Your task to perform on an android device: clear all cookies in the chrome app Image 0: 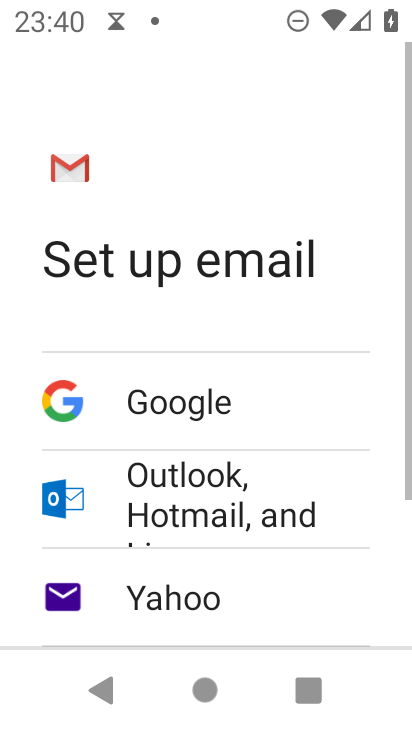
Step 0: press home button
Your task to perform on an android device: clear all cookies in the chrome app Image 1: 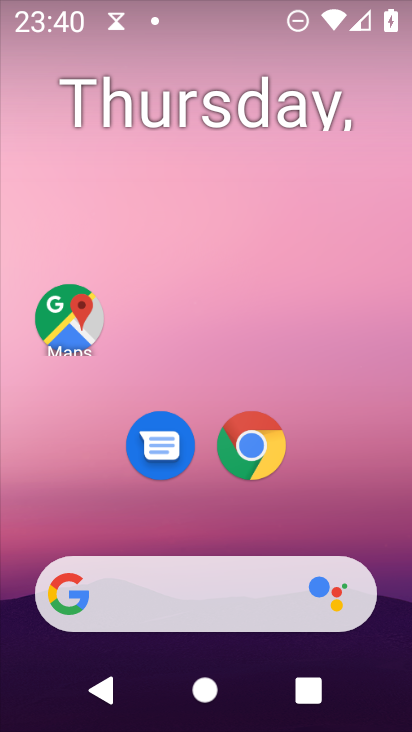
Step 1: click (284, 478)
Your task to perform on an android device: clear all cookies in the chrome app Image 2: 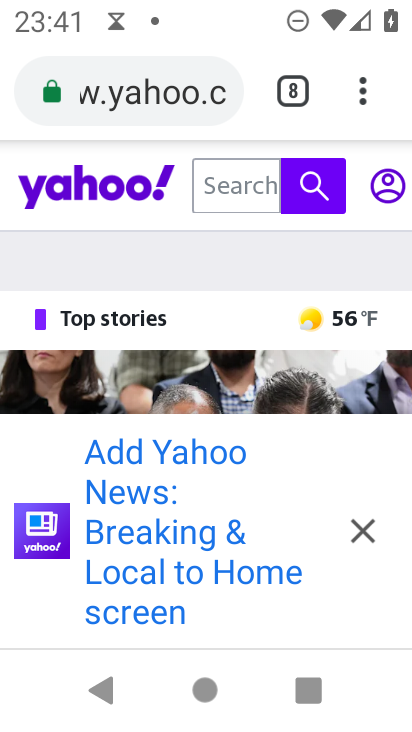
Step 2: click (366, 98)
Your task to perform on an android device: clear all cookies in the chrome app Image 3: 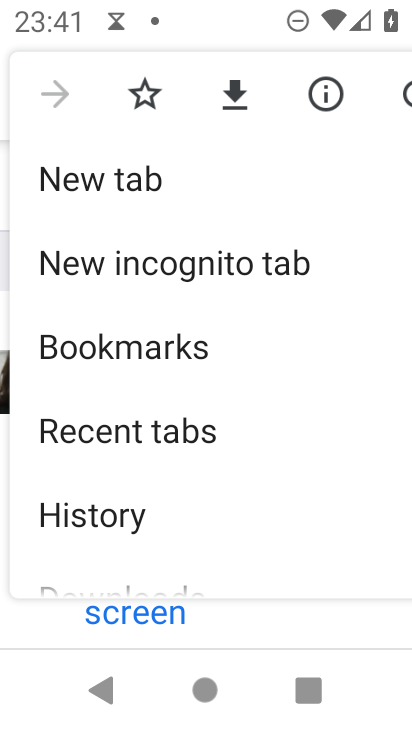
Step 3: click (65, 506)
Your task to perform on an android device: clear all cookies in the chrome app Image 4: 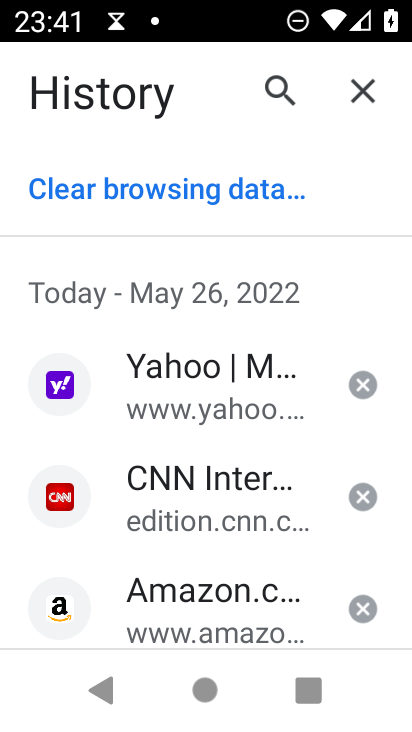
Step 4: click (151, 188)
Your task to perform on an android device: clear all cookies in the chrome app Image 5: 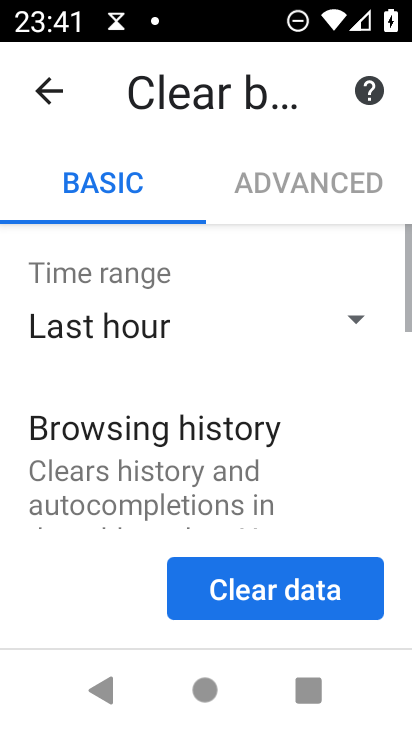
Step 5: click (151, 188)
Your task to perform on an android device: clear all cookies in the chrome app Image 6: 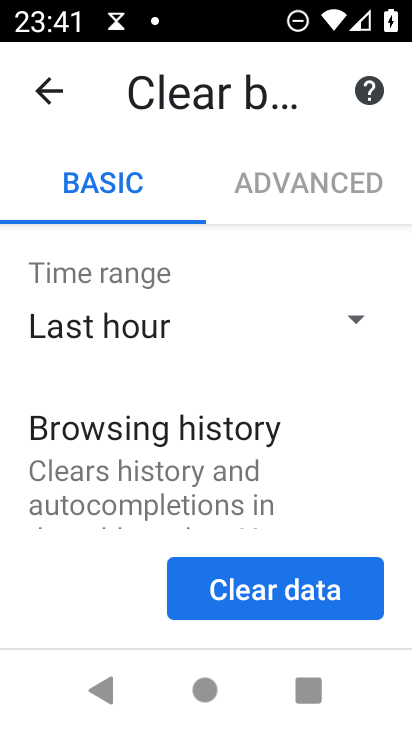
Step 6: drag from (251, 499) to (256, 143)
Your task to perform on an android device: clear all cookies in the chrome app Image 7: 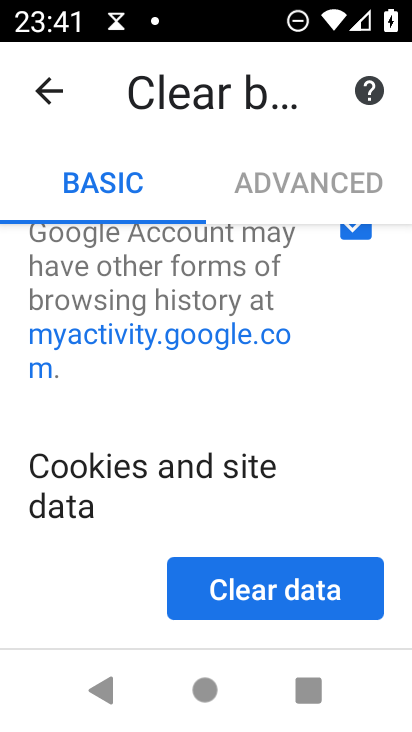
Step 7: drag from (304, 510) to (303, 152)
Your task to perform on an android device: clear all cookies in the chrome app Image 8: 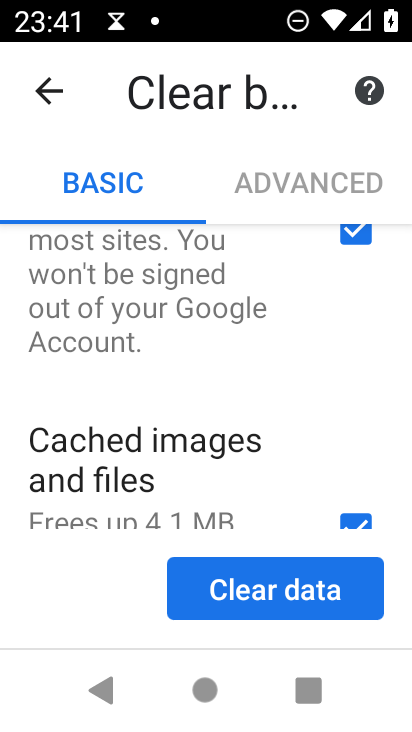
Step 8: click (363, 515)
Your task to perform on an android device: clear all cookies in the chrome app Image 9: 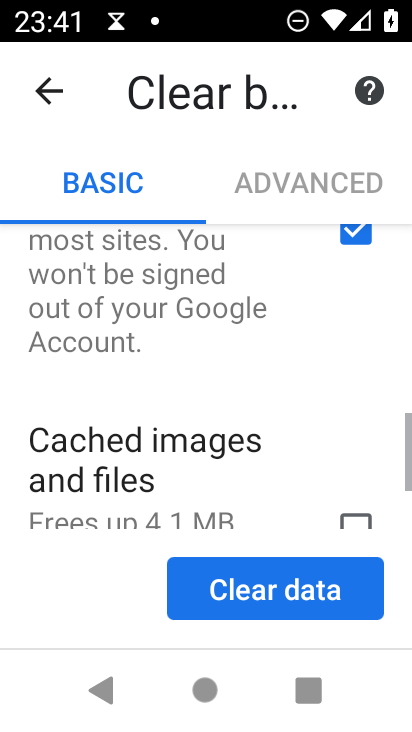
Step 9: drag from (281, 269) to (263, 562)
Your task to perform on an android device: clear all cookies in the chrome app Image 10: 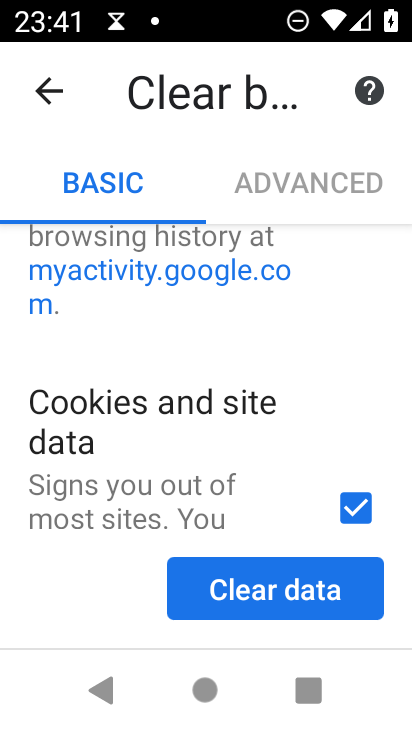
Step 10: drag from (313, 252) to (309, 395)
Your task to perform on an android device: clear all cookies in the chrome app Image 11: 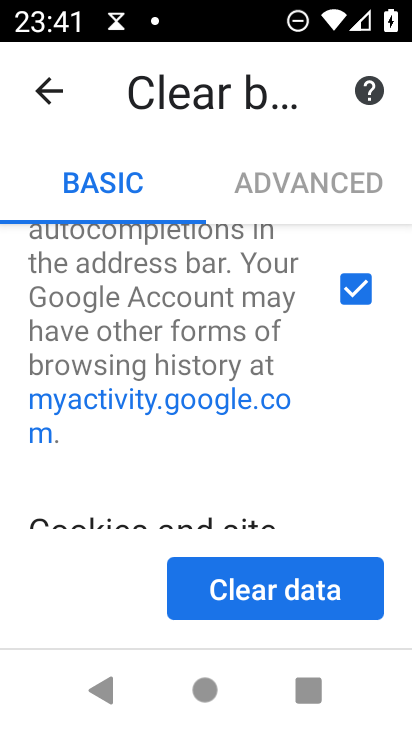
Step 11: click (355, 280)
Your task to perform on an android device: clear all cookies in the chrome app Image 12: 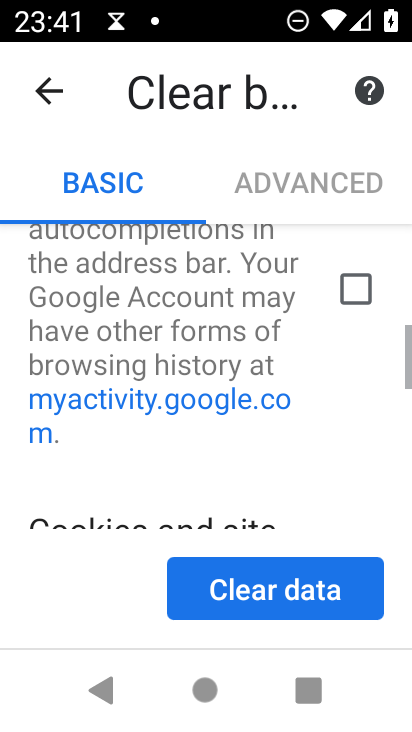
Step 12: drag from (316, 483) to (315, 252)
Your task to perform on an android device: clear all cookies in the chrome app Image 13: 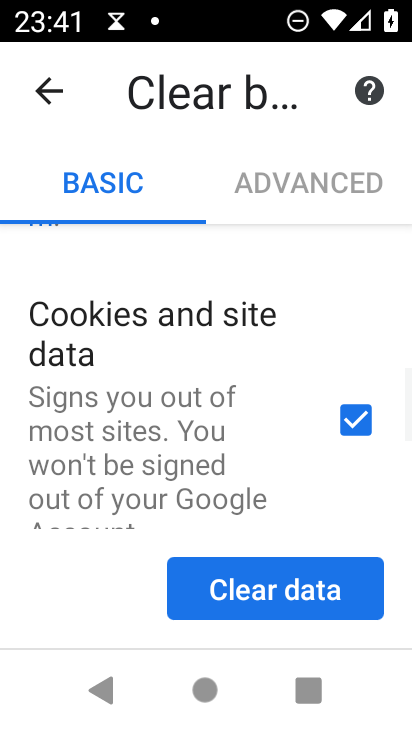
Step 13: click (311, 588)
Your task to perform on an android device: clear all cookies in the chrome app Image 14: 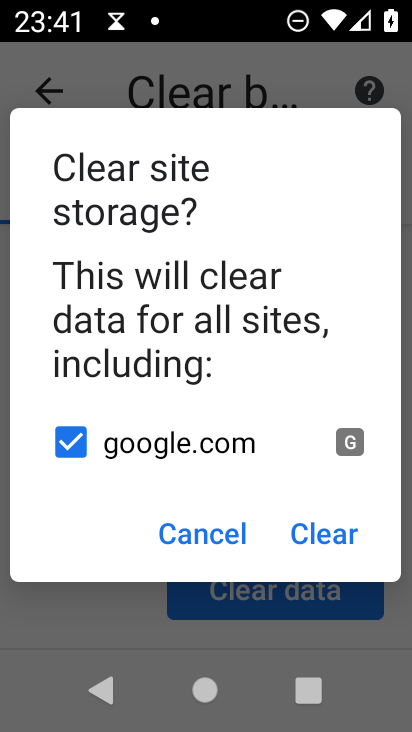
Step 14: click (318, 529)
Your task to perform on an android device: clear all cookies in the chrome app Image 15: 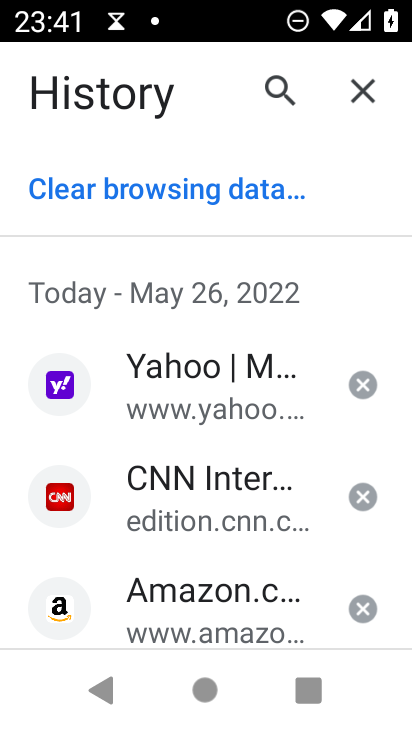
Step 15: task complete